Your task to perform on an android device: clear history in the chrome app Image 0: 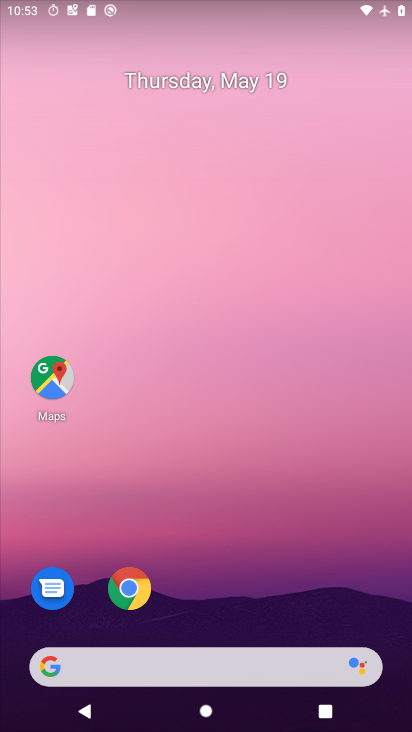
Step 0: press home button
Your task to perform on an android device: clear history in the chrome app Image 1: 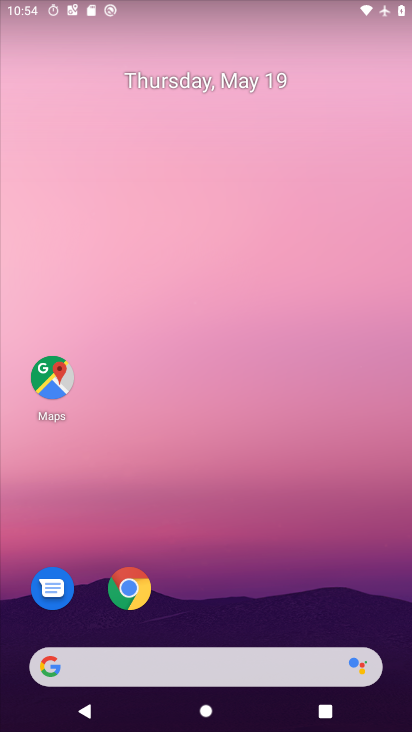
Step 1: click (132, 598)
Your task to perform on an android device: clear history in the chrome app Image 2: 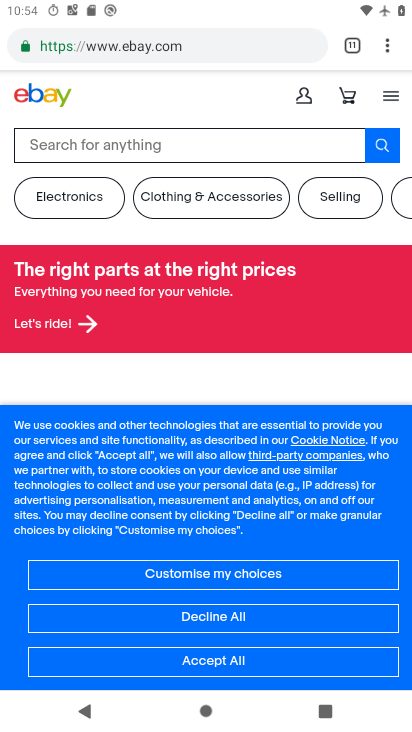
Step 2: drag from (390, 53) to (277, 255)
Your task to perform on an android device: clear history in the chrome app Image 3: 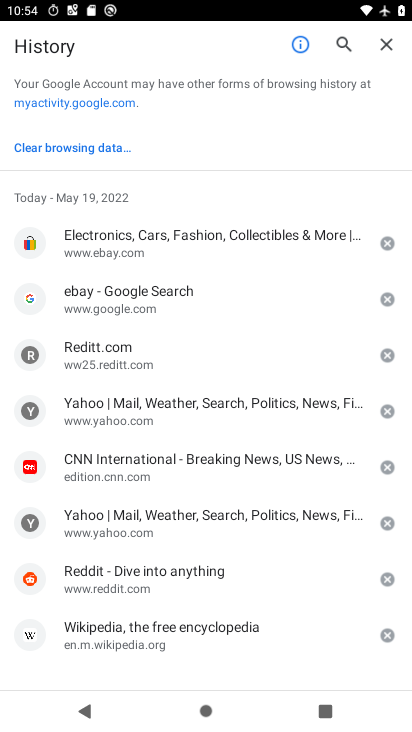
Step 3: click (86, 144)
Your task to perform on an android device: clear history in the chrome app Image 4: 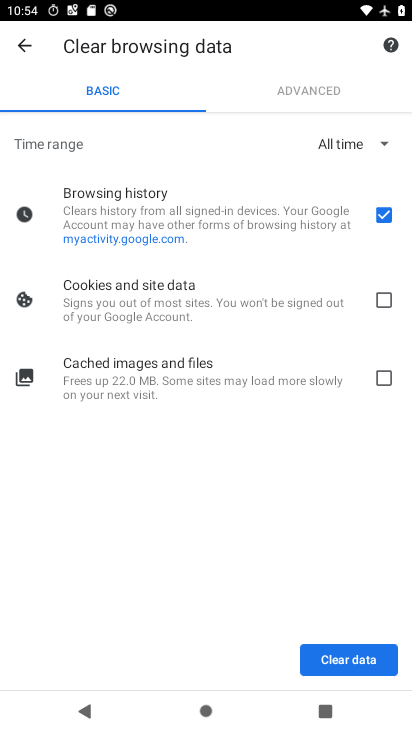
Step 4: click (384, 295)
Your task to perform on an android device: clear history in the chrome app Image 5: 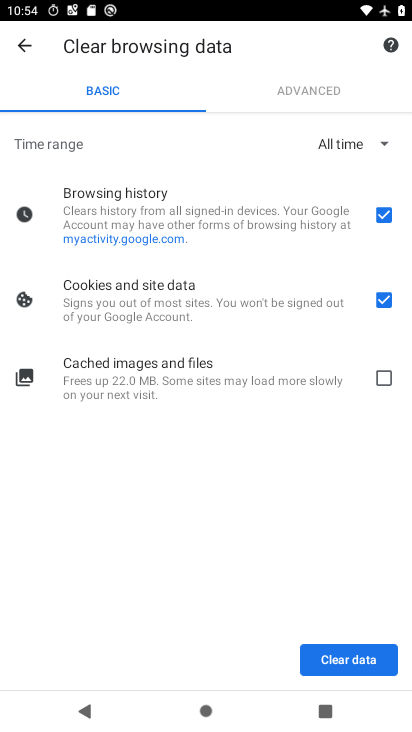
Step 5: click (386, 382)
Your task to perform on an android device: clear history in the chrome app Image 6: 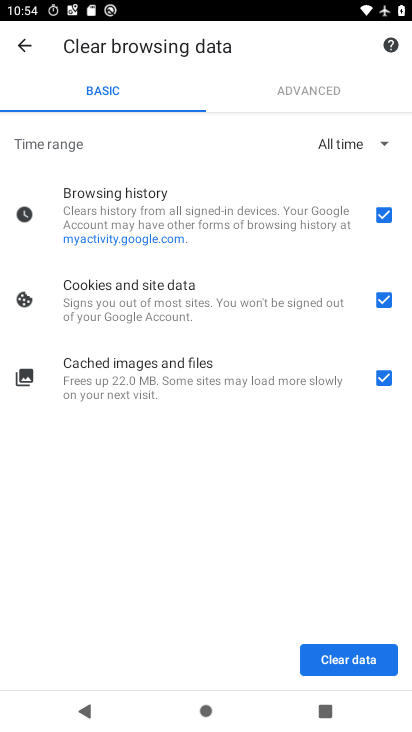
Step 6: click (354, 653)
Your task to perform on an android device: clear history in the chrome app Image 7: 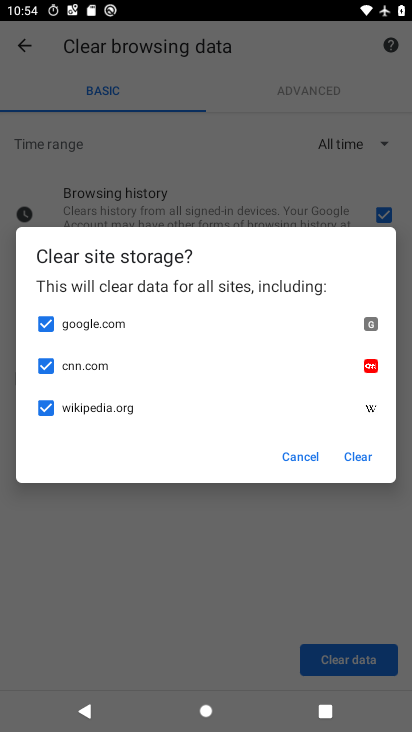
Step 7: click (360, 460)
Your task to perform on an android device: clear history in the chrome app Image 8: 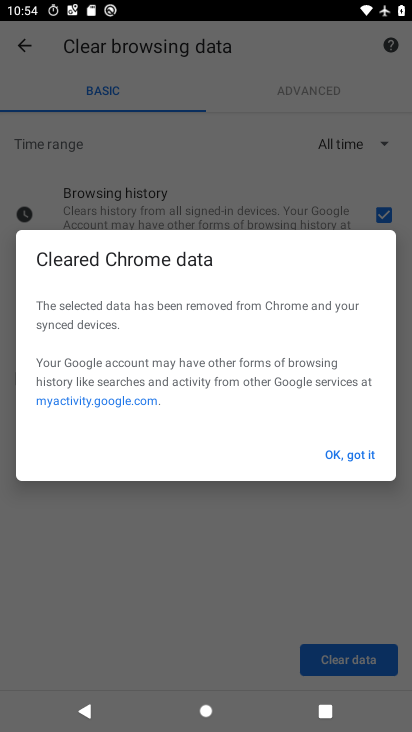
Step 8: click (341, 458)
Your task to perform on an android device: clear history in the chrome app Image 9: 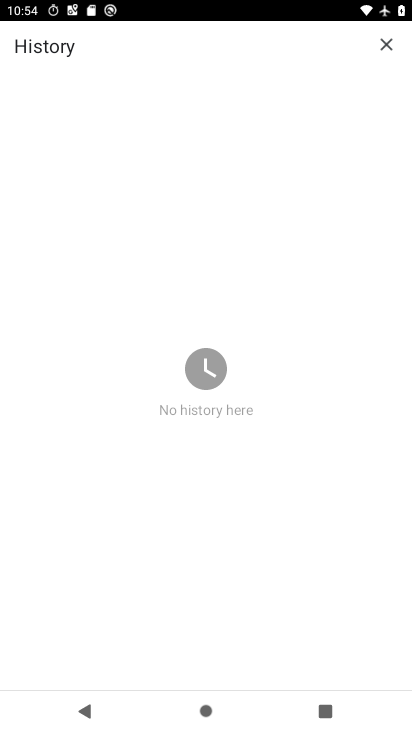
Step 9: task complete